Your task to perform on an android device: check storage Image 0: 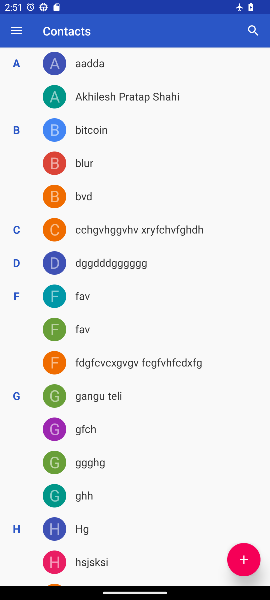
Step 0: press home button
Your task to perform on an android device: check storage Image 1: 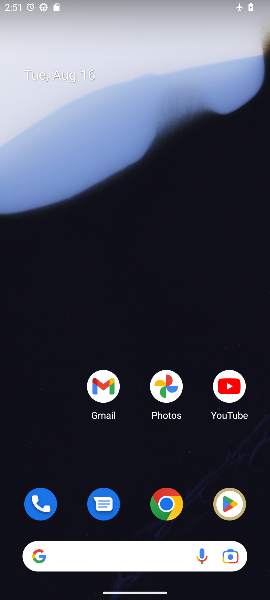
Step 1: drag from (137, 511) to (120, 40)
Your task to perform on an android device: check storage Image 2: 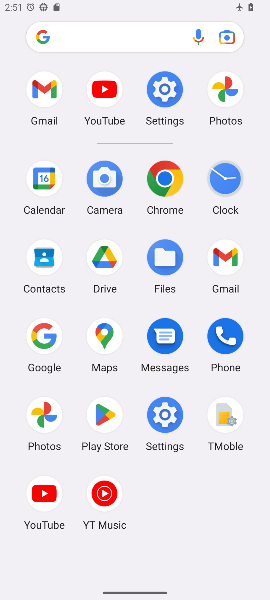
Step 2: click (161, 89)
Your task to perform on an android device: check storage Image 3: 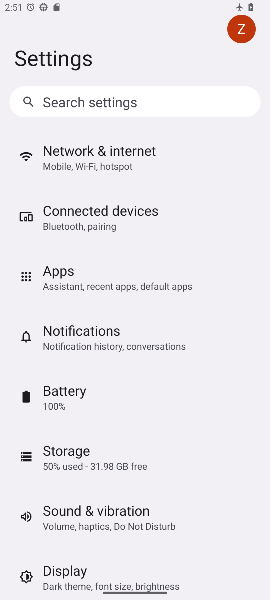
Step 3: click (64, 448)
Your task to perform on an android device: check storage Image 4: 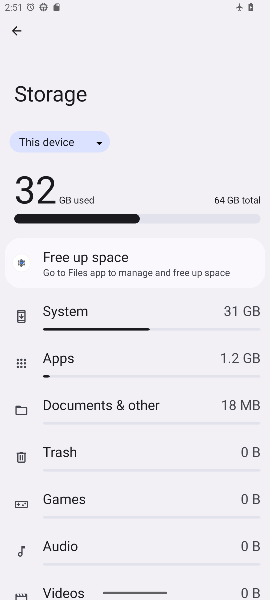
Step 4: task complete